Your task to perform on an android device: toggle improve location accuracy Image 0: 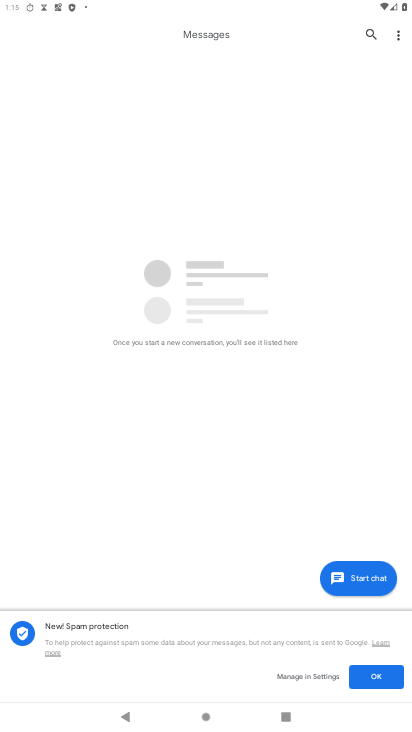
Step 0: press home button
Your task to perform on an android device: toggle improve location accuracy Image 1: 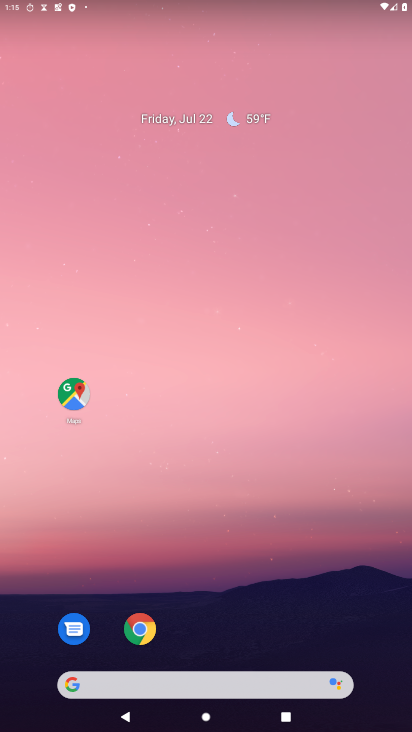
Step 1: drag from (124, 651) to (11, 93)
Your task to perform on an android device: toggle improve location accuracy Image 2: 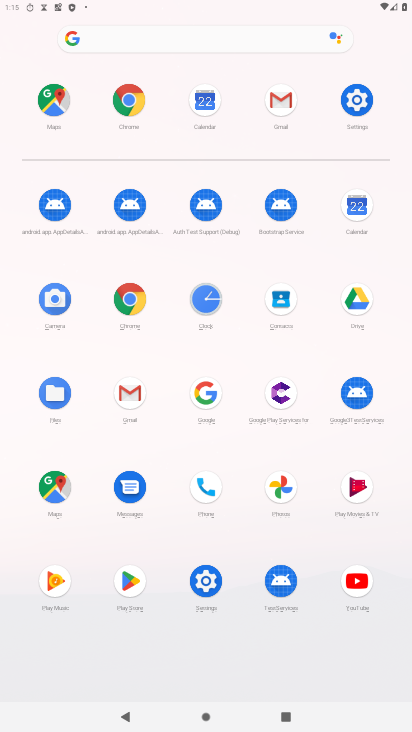
Step 2: click (364, 99)
Your task to perform on an android device: toggle improve location accuracy Image 3: 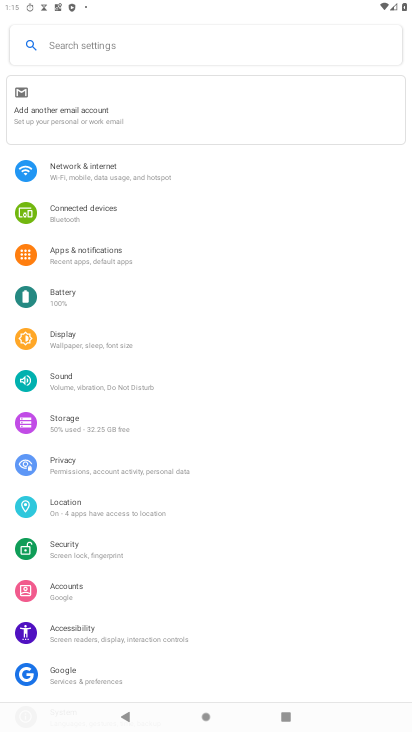
Step 3: click (74, 508)
Your task to perform on an android device: toggle improve location accuracy Image 4: 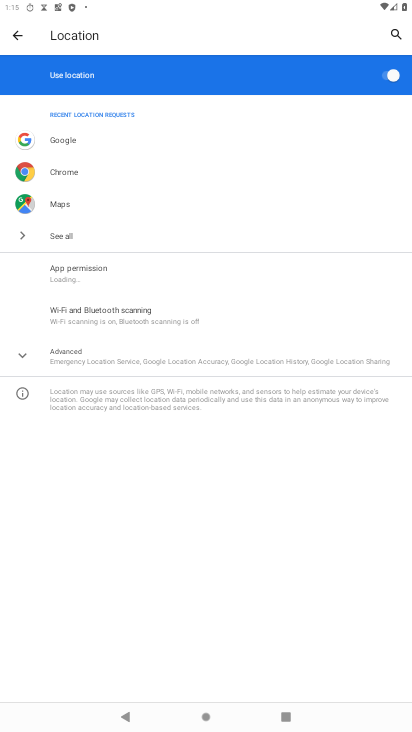
Step 4: click (178, 368)
Your task to perform on an android device: toggle improve location accuracy Image 5: 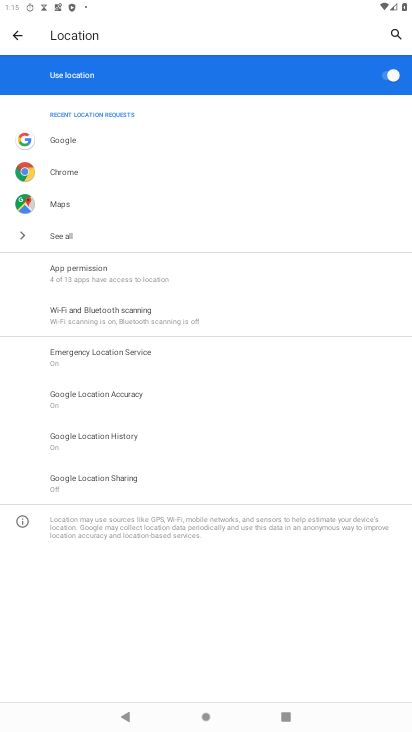
Step 5: click (116, 396)
Your task to perform on an android device: toggle improve location accuracy Image 6: 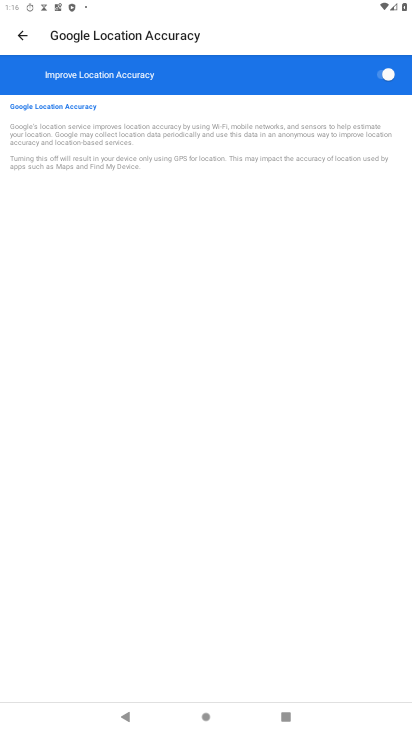
Step 6: task complete